Your task to perform on an android device: visit the assistant section in the google photos Image 0: 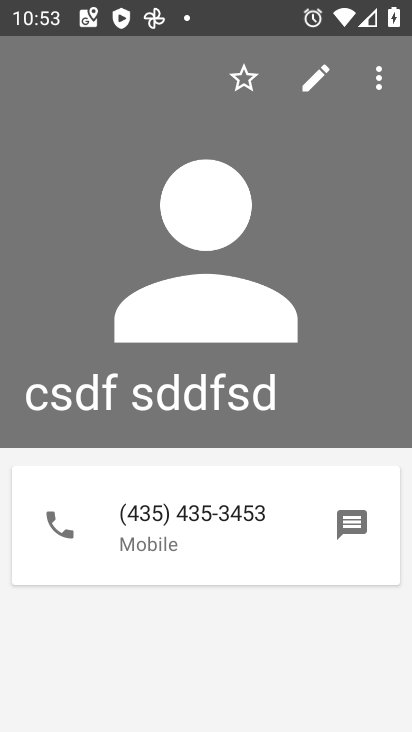
Step 0: press home button
Your task to perform on an android device: visit the assistant section in the google photos Image 1: 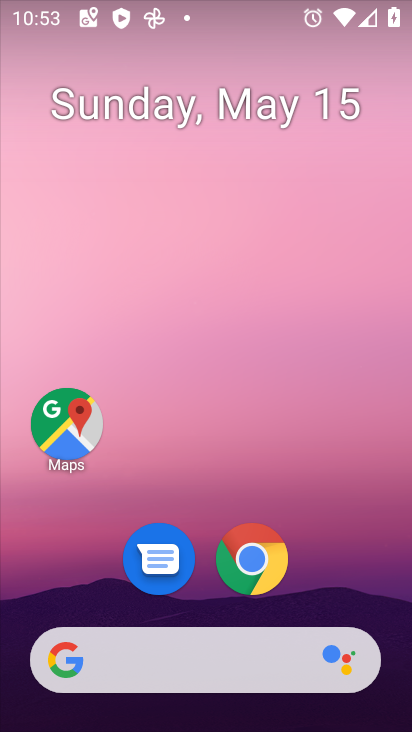
Step 1: drag from (338, 537) to (315, 71)
Your task to perform on an android device: visit the assistant section in the google photos Image 2: 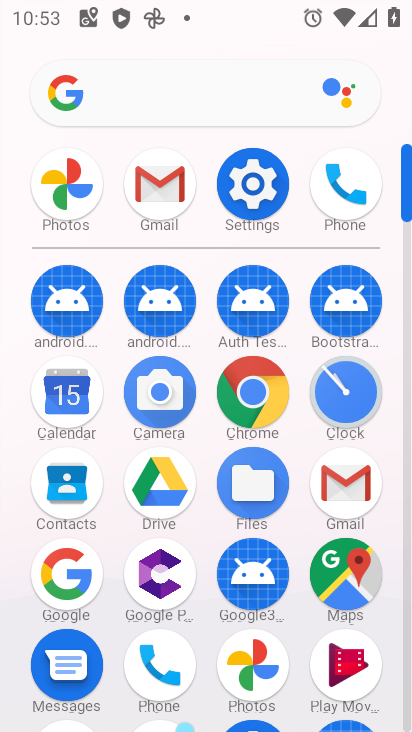
Step 2: click (236, 660)
Your task to perform on an android device: visit the assistant section in the google photos Image 3: 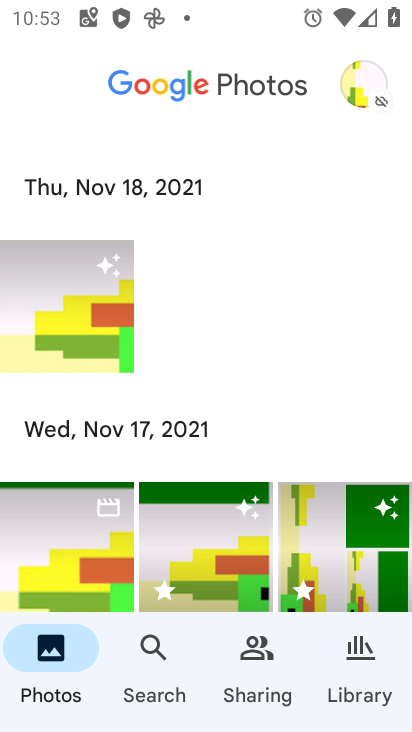
Step 3: click (369, 98)
Your task to perform on an android device: visit the assistant section in the google photos Image 4: 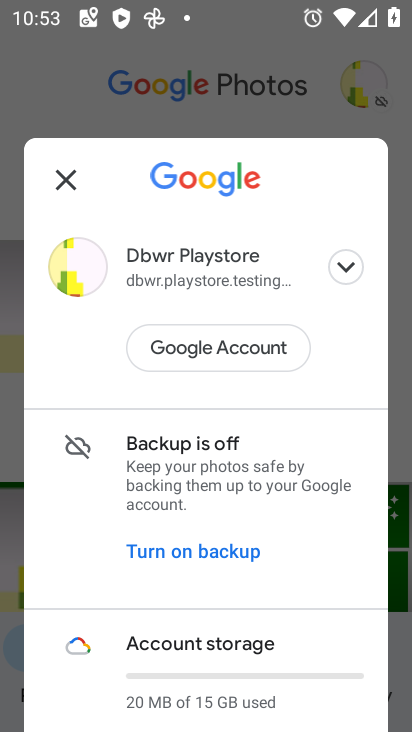
Step 4: click (69, 189)
Your task to perform on an android device: visit the assistant section in the google photos Image 5: 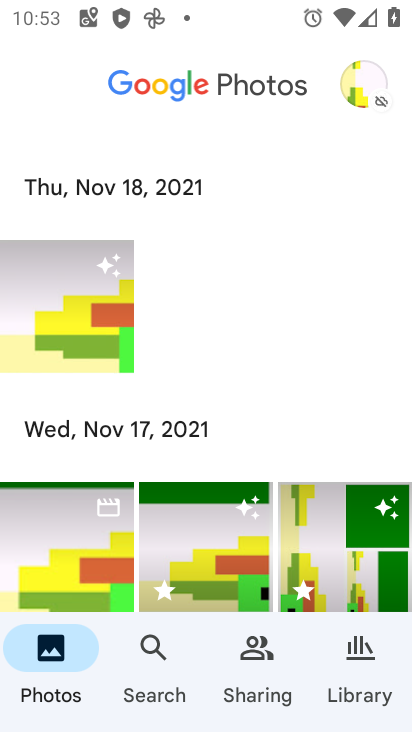
Step 5: click (354, 678)
Your task to perform on an android device: visit the assistant section in the google photos Image 6: 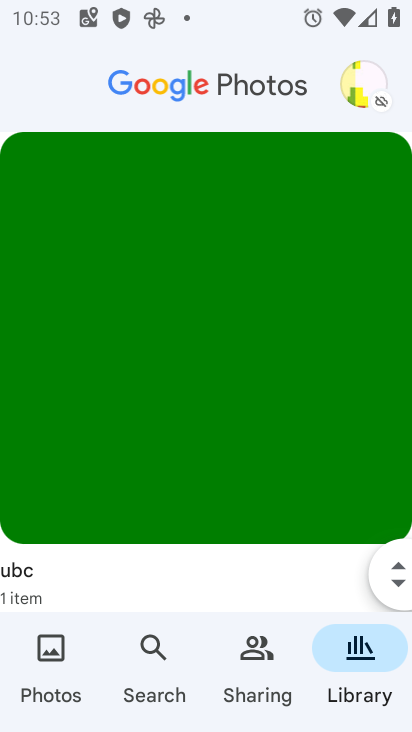
Step 6: click (406, 143)
Your task to perform on an android device: visit the assistant section in the google photos Image 7: 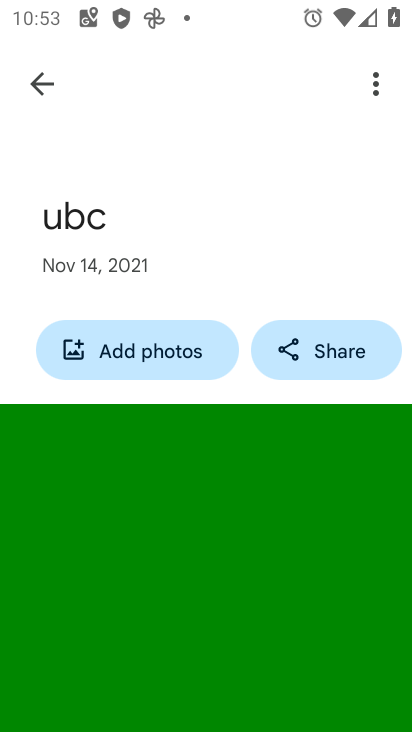
Step 7: click (33, 76)
Your task to perform on an android device: visit the assistant section in the google photos Image 8: 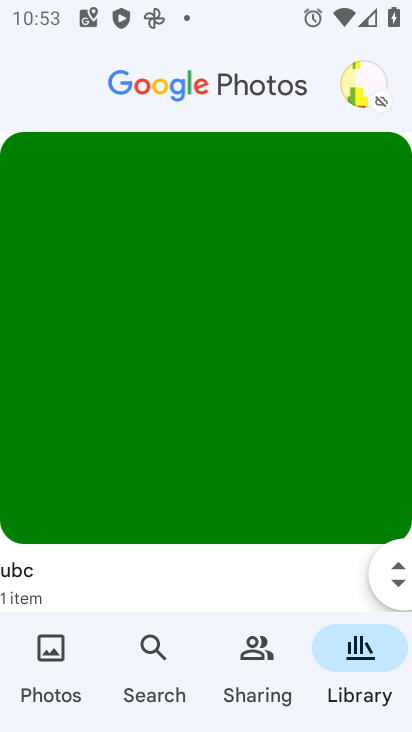
Step 8: drag from (399, 580) to (400, 70)
Your task to perform on an android device: visit the assistant section in the google photos Image 9: 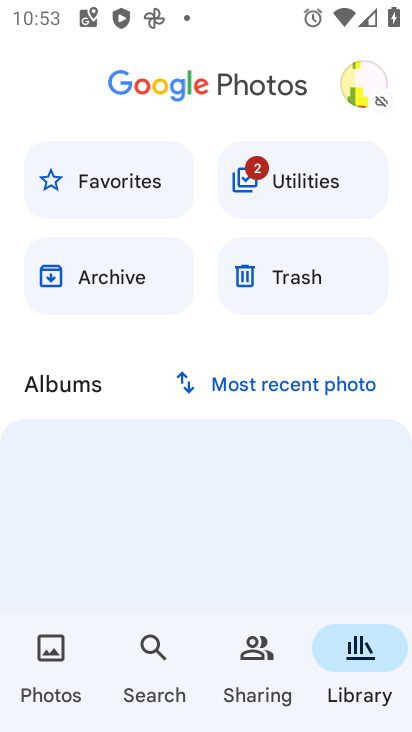
Step 9: click (306, 195)
Your task to perform on an android device: visit the assistant section in the google photos Image 10: 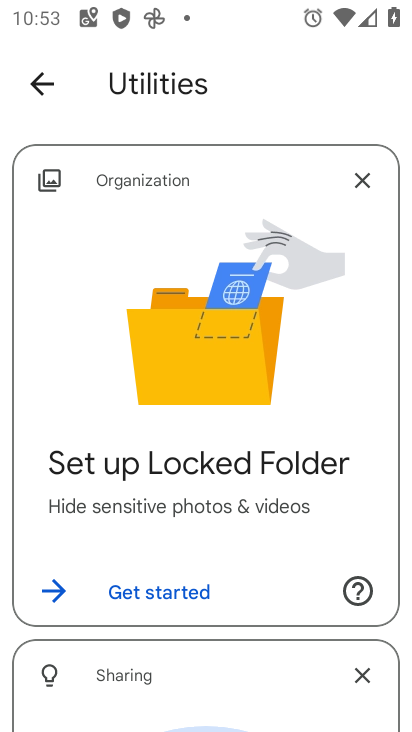
Step 10: task complete